Your task to perform on an android device: toggle priority inbox in the gmail app Image 0: 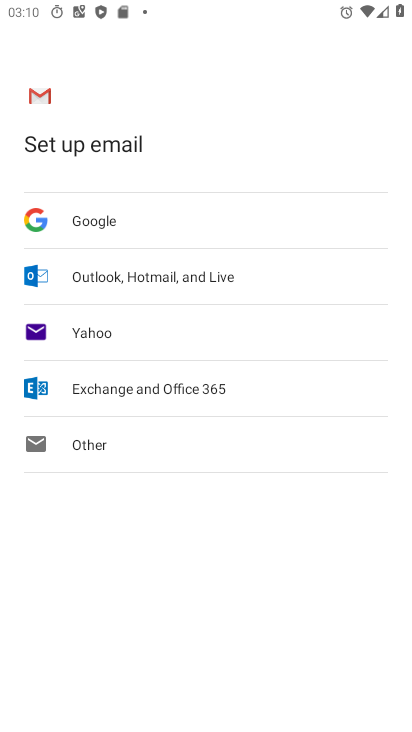
Step 0: press home button
Your task to perform on an android device: toggle priority inbox in the gmail app Image 1: 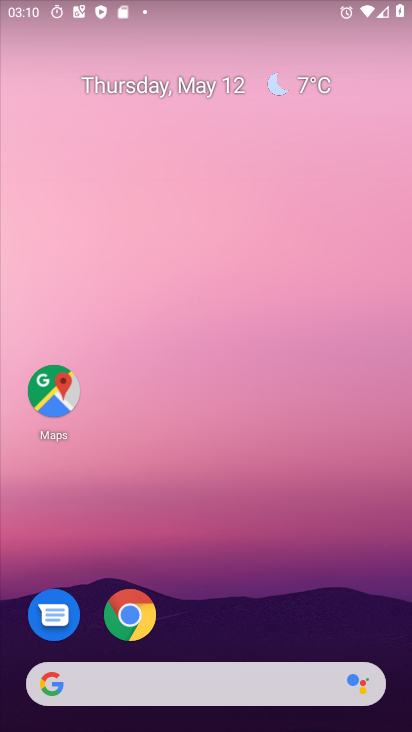
Step 1: drag from (172, 670) to (173, 111)
Your task to perform on an android device: toggle priority inbox in the gmail app Image 2: 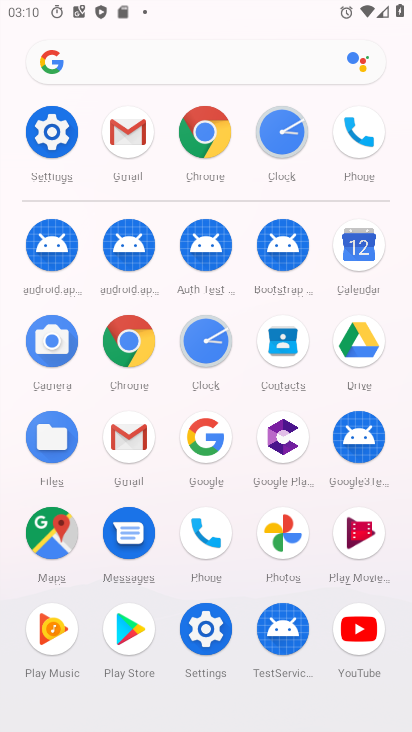
Step 2: click (133, 433)
Your task to perform on an android device: toggle priority inbox in the gmail app Image 3: 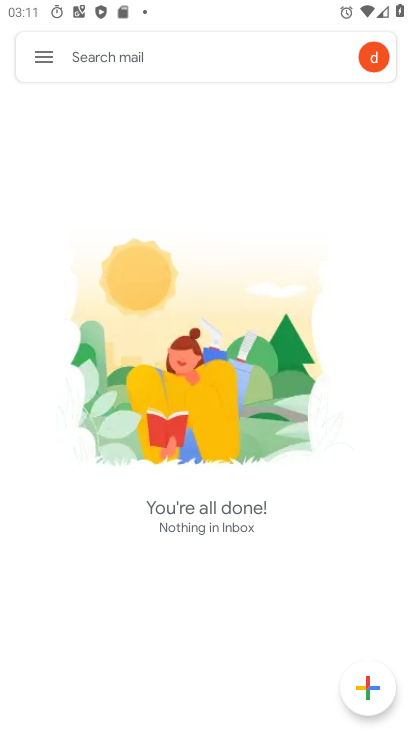
Step 3: click (45, 63)
Your task to perform on an android device: toggle priority inbox in the gmail app Image 4: 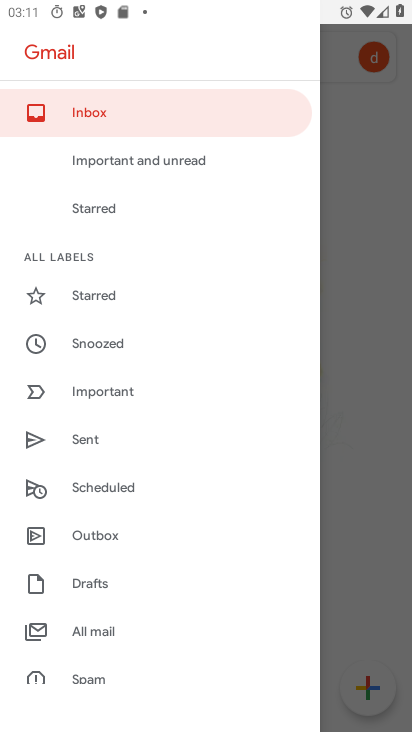
Step 4: drag from (118, 639) to (113, 216)
Your task to perform on an android device: toggle priority inbox in the gmail app Image 5: 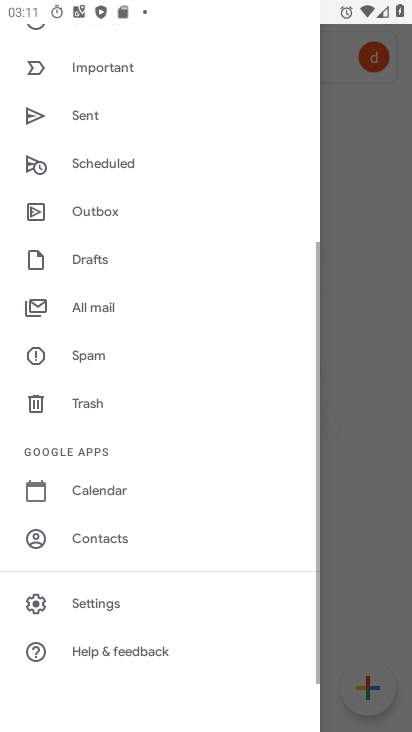
Step 5: click (108, 607)
Your task to perform on an android device: toggle priority inbox in the gmail app Image 6: 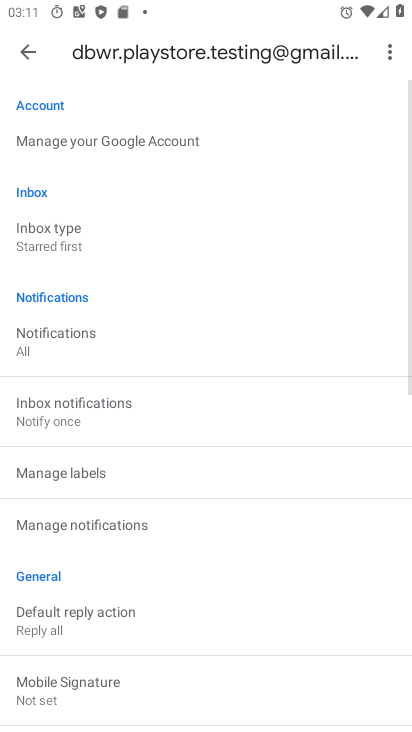
Step 6: click (76, 245)
Your task to perform on an android device: toggle priority inbox in the gmail app Image 7: 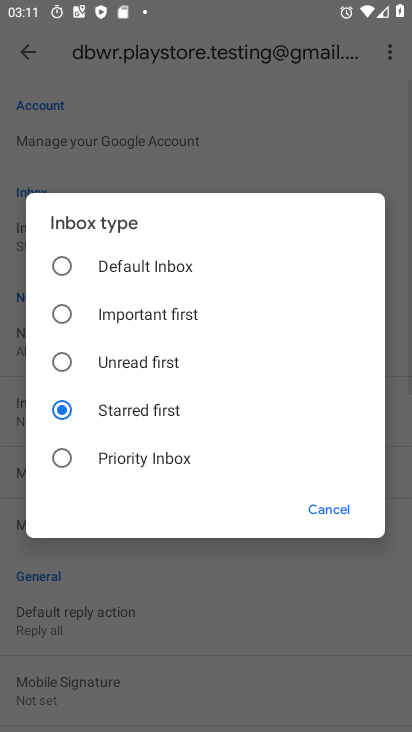
Step 7: click (139, 467)
Your task to perform on an android device: toggle priority inbox in the gmail app Image 8: 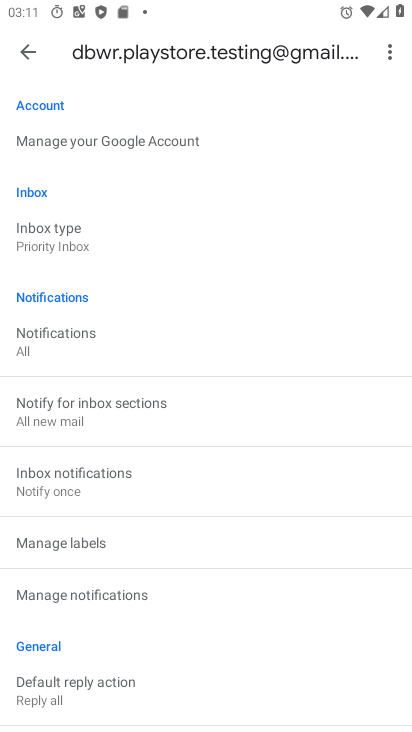
Step 8: task complete